Your task to perform on an android device: open wifi settings Image 0: 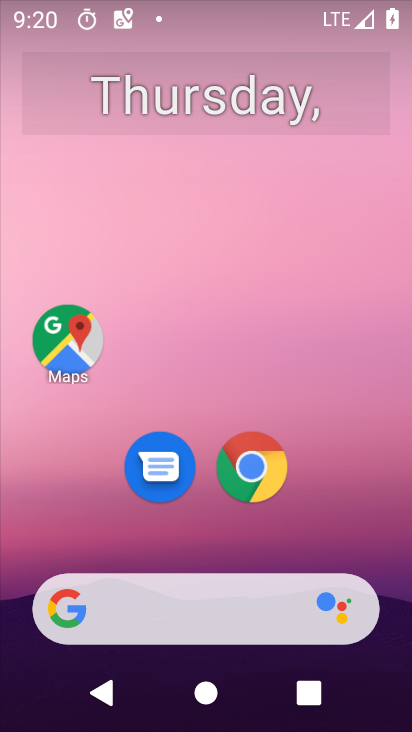
Step 0: drag from (311, 444) to (285, 43)
Your task to perform on an android device: open wifi settings Image 1: 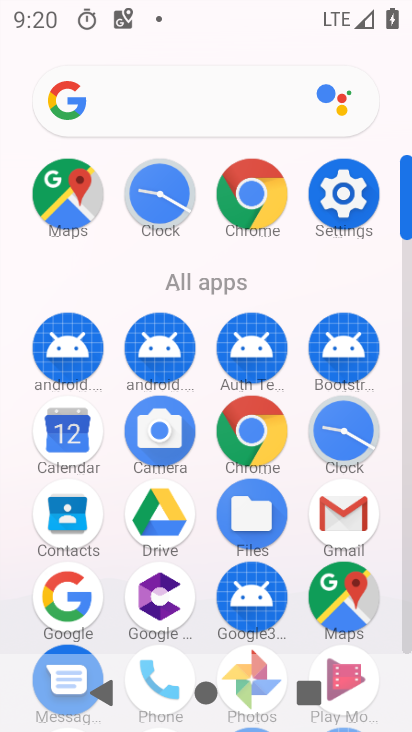
Step 1: click (346, 183)
Your task to perform on an android device: open wifi settings Image 2: 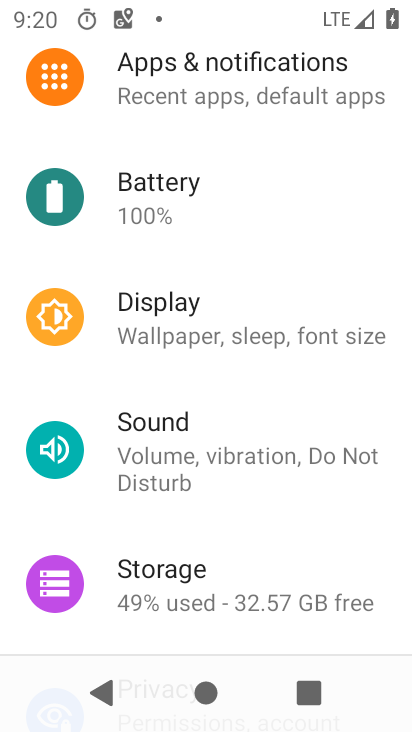
Step 2: drag from (282, 152) to (277, 539)
Your task to perform on an android device: open wifi settings Image 3: 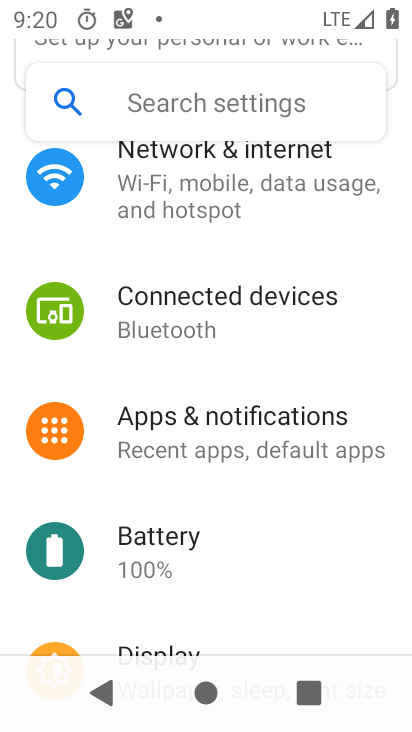
Step 3: click (234, 179)
Your task to perform on an android device: open wifi settings Image 4: 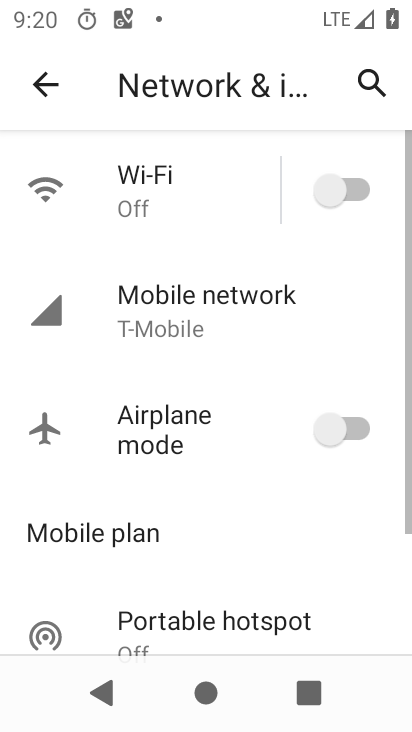
Step 4: click (191, 179)
Your task to perform on an android device: open wifi settings Image 5: 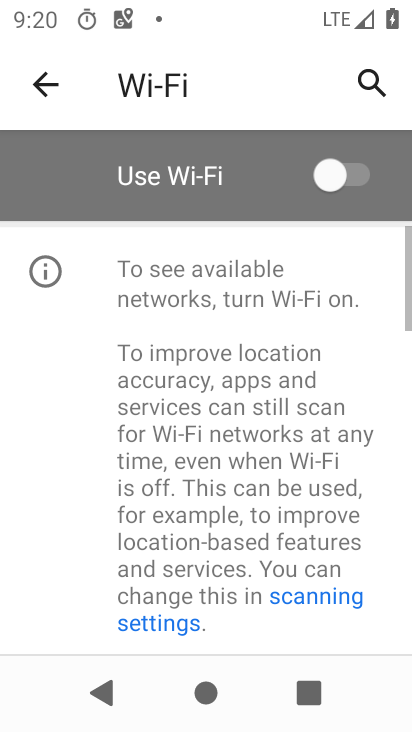
Step 5: click (374, 166)
Your task to perform on an android device: open wifi settings Image 6: 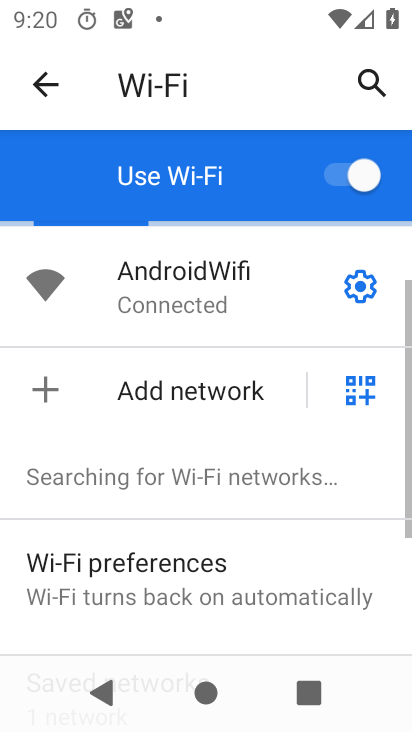
Step 6: click (358, 300)
Your task to perform on an android device: open wifi settings Image 7: 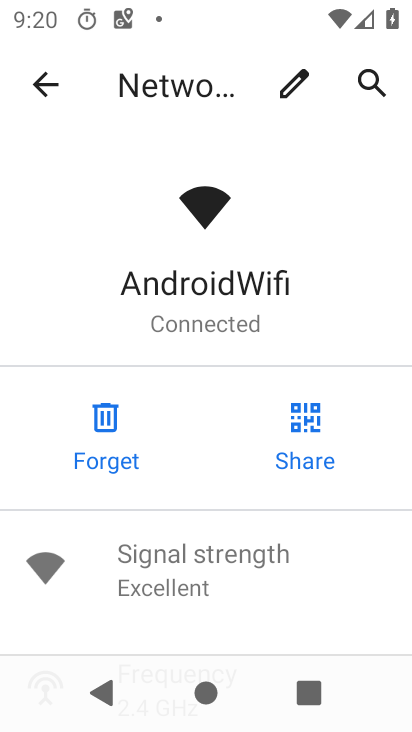
Step 7: task complete